Your task to perform on an android device: turn on the 12-hour format for clock Image 0: 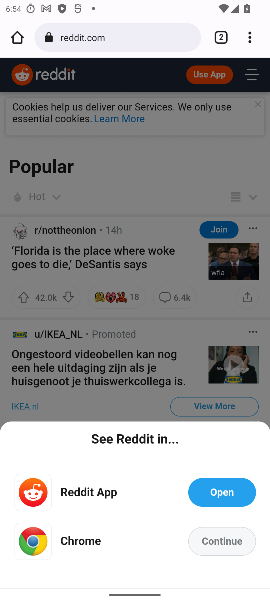
Step 0: press home button
Your task to perform on an android device: turn on the 12-hour format for clock Image 1: 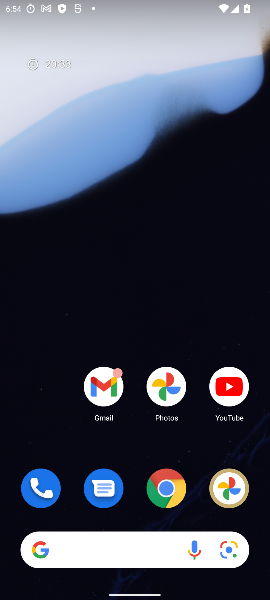
Step 1: drag from (195, 462) to (186, 114)
Your task to perform on an android device: turn on the 12-hour format for clock Image 2: 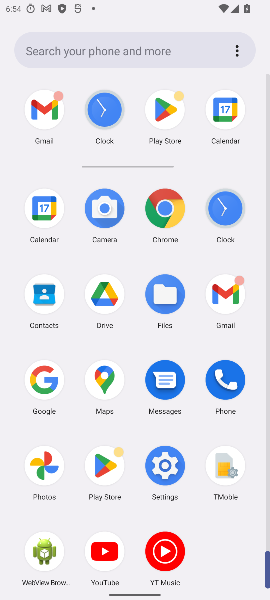
Step 2: click (231, 207)
Your task to perform on an android device: turn on the 12-hour format for clock Image 3: 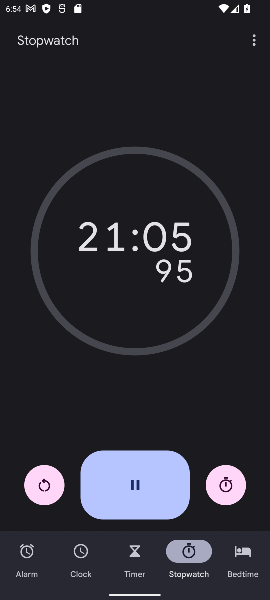
Step 3: click (257, 43)
Your task to perform on an android device: turn on the 12-hour format for clock Image 4: 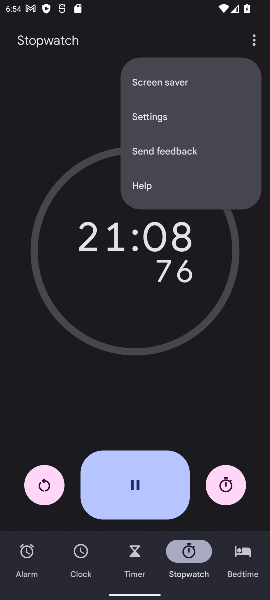
Step 4: click (144, 123)
Your task to perform on an android device: turn on the 12-hour format for clock Image 5: 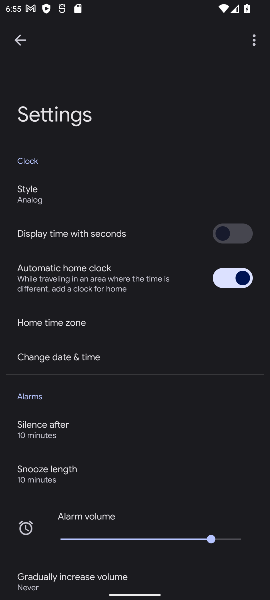
Step 5: click (77, 356)
Your task to perform on an android device: turn on the 12-hour format for clock Image 6: 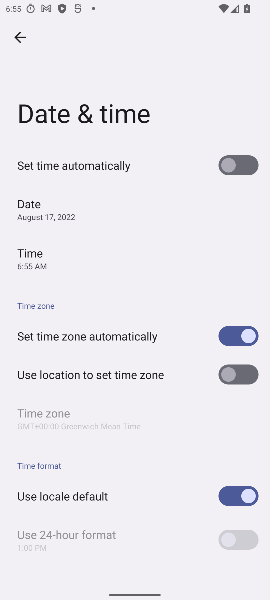
Step 6: task complete